Your task to perform on an android device: open a new tab in the chrome app Image 0: 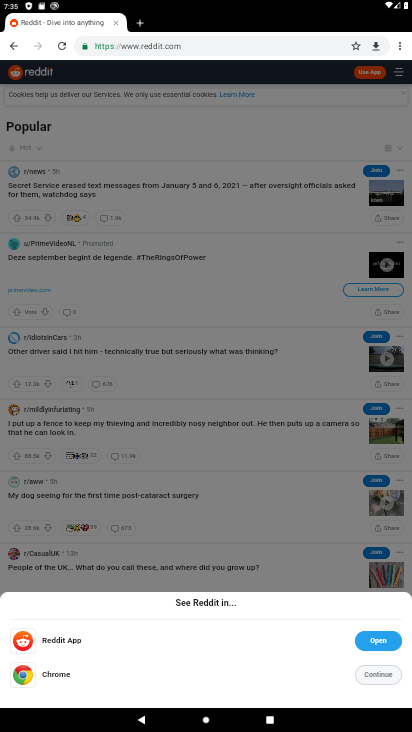
Step 0: press home button
Your task to perform on an android device: open a new tab in the chrome app Image 1: 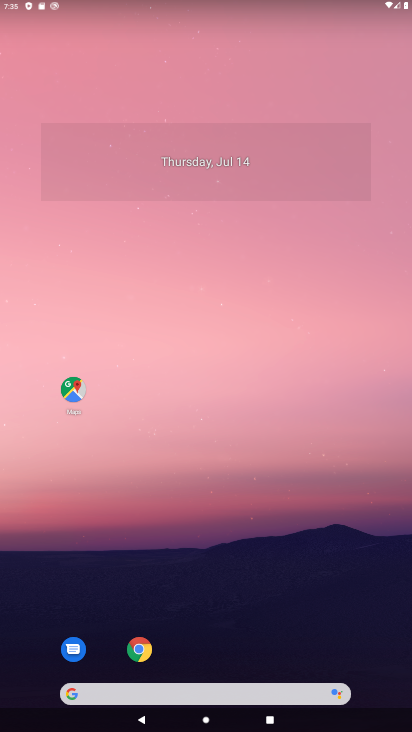
Step 1: drag from (305, 534) to (316, 176)
Your task to perform on an android device: open a new tab in the chrome app Image 2: 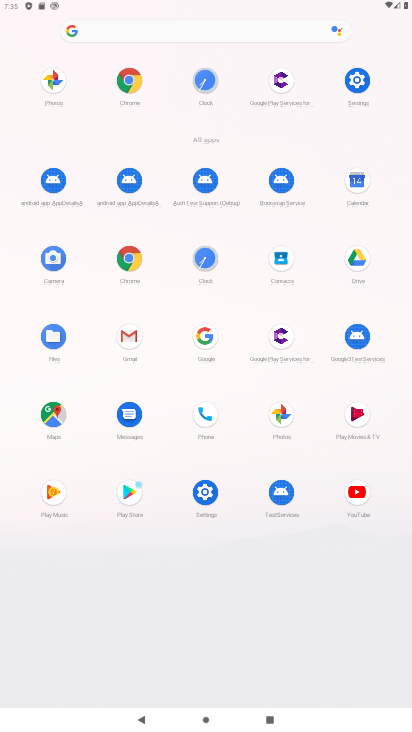
Step 2: click (139, 81)
Your task to perform on an android device: open a new tab in the chrome app Image 3: 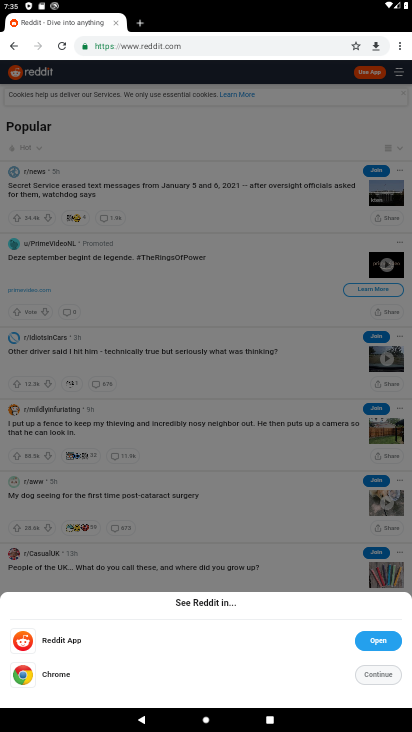
Step 3: task complete